Your task to perform on an android device: Open calendar and show me the fourth week of next month Image 0: 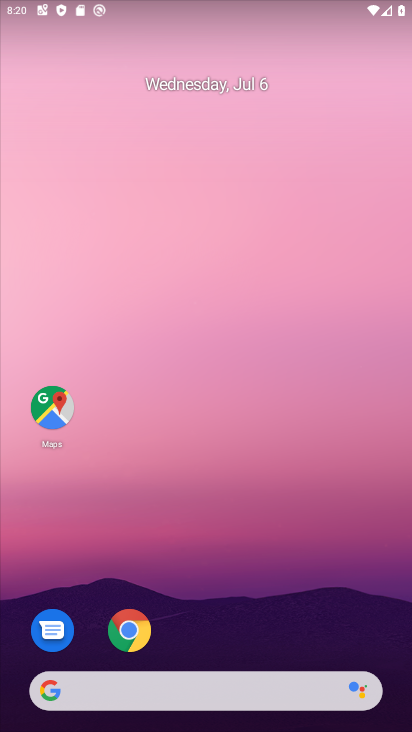
Step 0: drag from (390, 710) to (364, 136)
Your task to perform on an android device: Open calendar and show me the fourth week of next month Image 1: 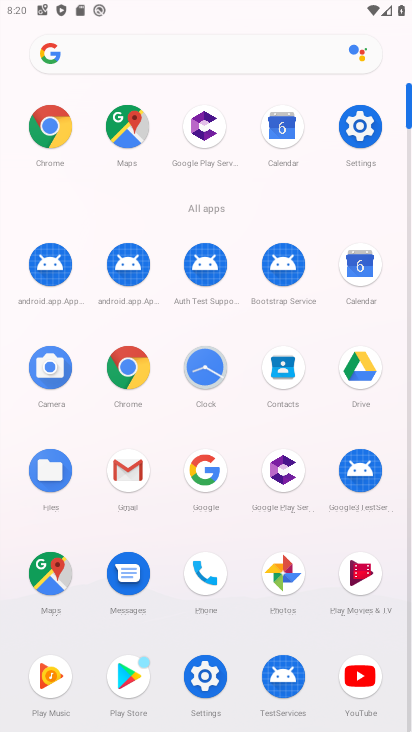
Step 1: click (358, 258)
Your task to perform on an android device: Open calendar and show me the fourth week of next month Image 2: 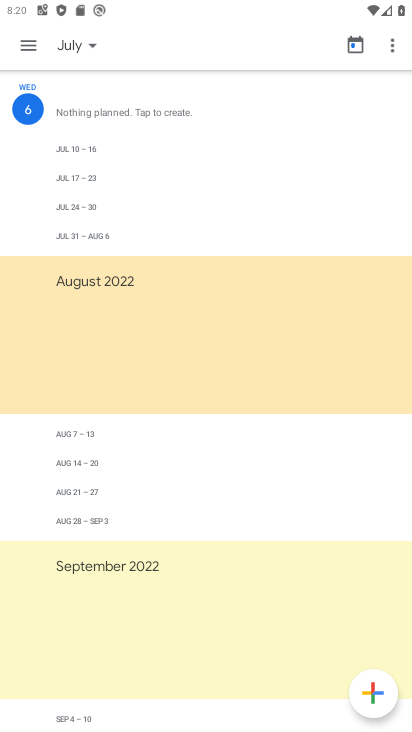
Step 2: click (88, 45)
Your task to perform on an android device: Open calendar and show me the fourth week of next month Image 3: 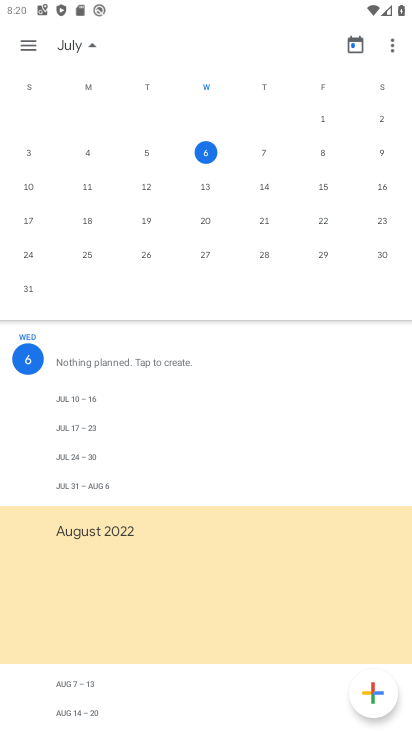
Step 3: drag from (376, 180) to (85, 196)
Your task to perform on an android device: Open calendar and show me the fourth week of next month Image 4: 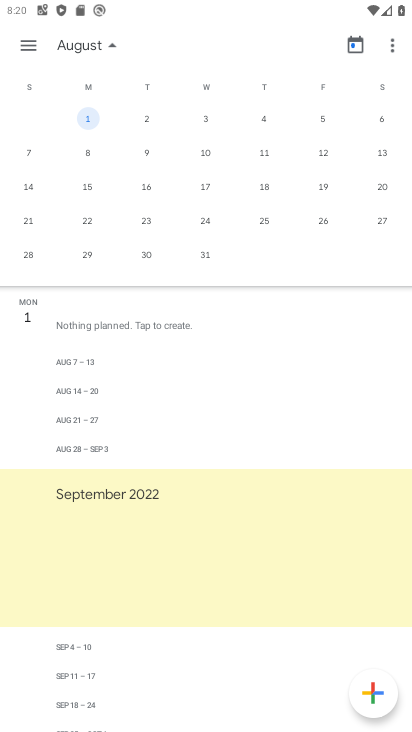
Step 4: click (145, 211)
Your task to perform on an android device: Open calendar and show me the fourth week of next month Image 5: 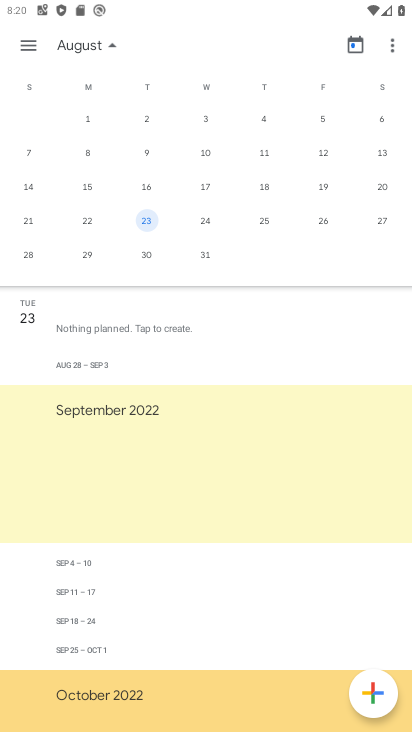
Step 5: task complete